Your task to perform on an android device: Open Yahoo.com Image 0: 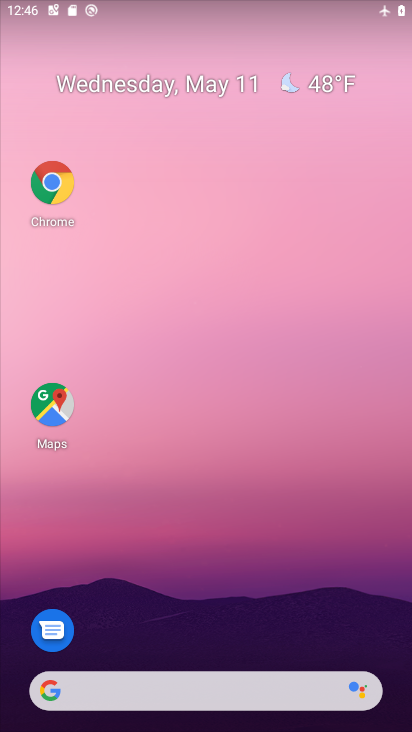
Step 0: drag from (147, 664) to (204, 3)
Your task to perform on an android device: Open Yahoo.com Image 1: 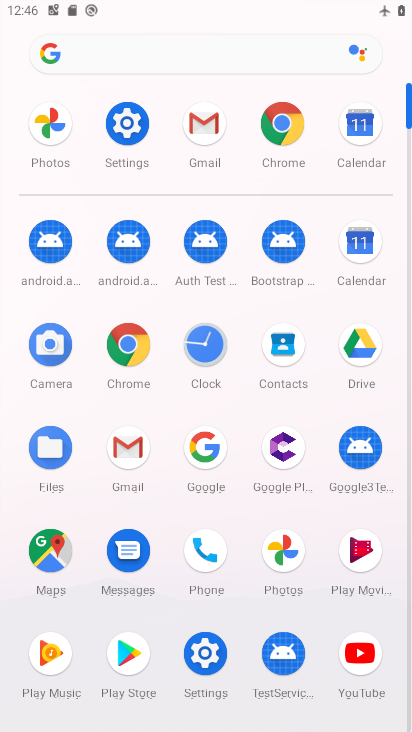
Step 1: click (284, 125)
Your task to perform on an android device: Open Yahoo.com Image 2: 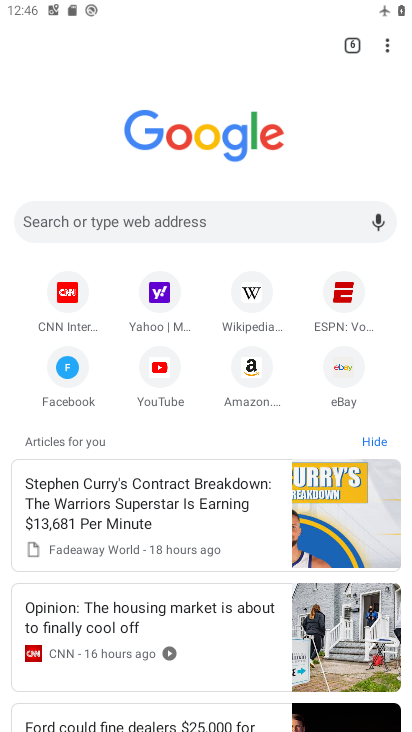
Step 2: click (155, 279)
Your task to perform on an android device: Open Yahoo.com Image 3: 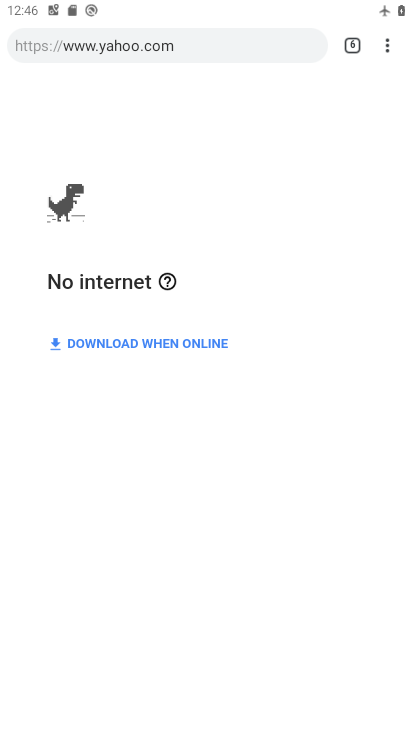
Step 3: task complete